Your task to perform on an android device: Turn off the flashlight Image 0: 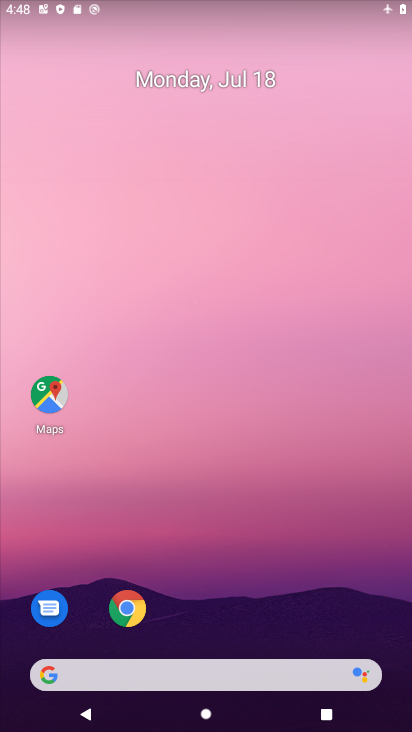
Step 0: drag from (322, 628) to (276, 73)
Your task to perform on an android device: Turn off the flashlight Image 1: 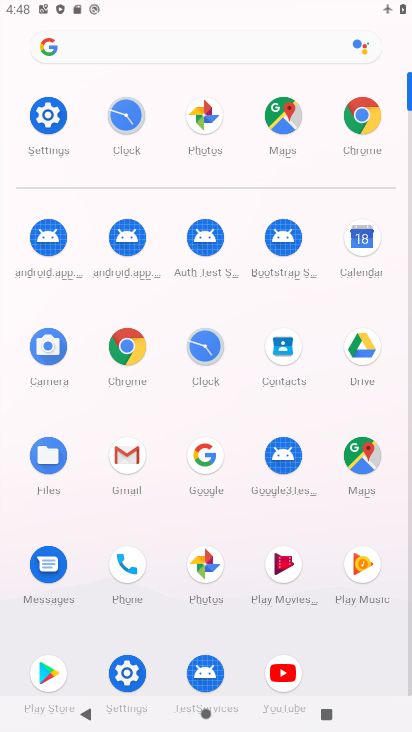
Step 1: click (52, 117)
Your task to perform on an android device: Turn off the flashlight Image 2: 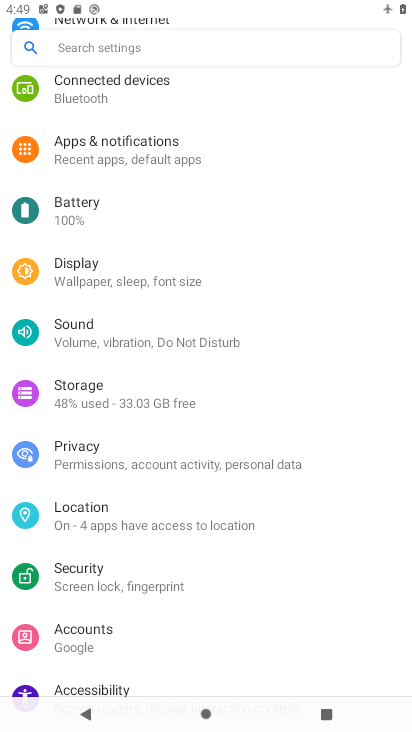
Step 2: click (87, 264)
Your task to perform on an android device: Turn off the flashlight Image 3: 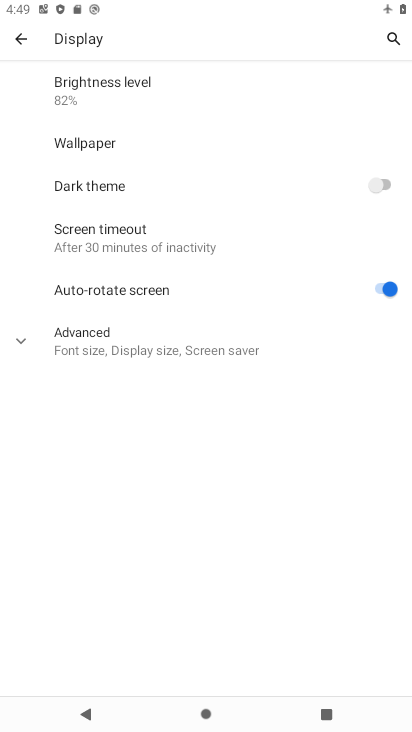
Step 3: click (168, 253)
Your task to perform on an android device: Turn off the flashlight Image 4: 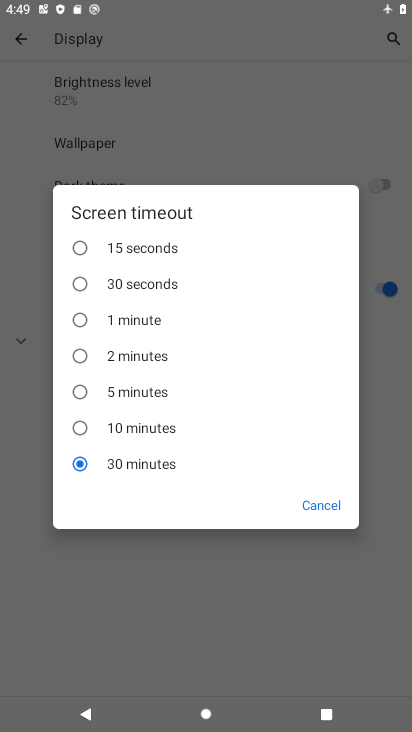
Step 4: task complete